Your task to perform on an android device: change the clock display to digital Image 0: 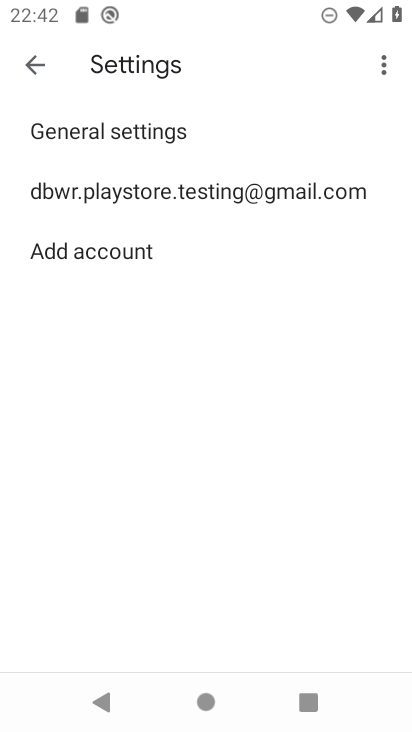
Step 0: press home button
Your task to perform on an android device: change the clock display to digital Image 1: 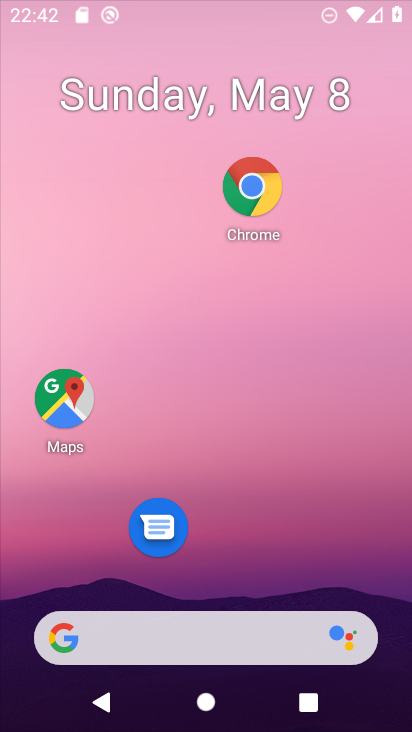
Step 1: drag from (260, 577) to (280, 281)
Your task to perform on an android device: change the clock display to digital Image 2: 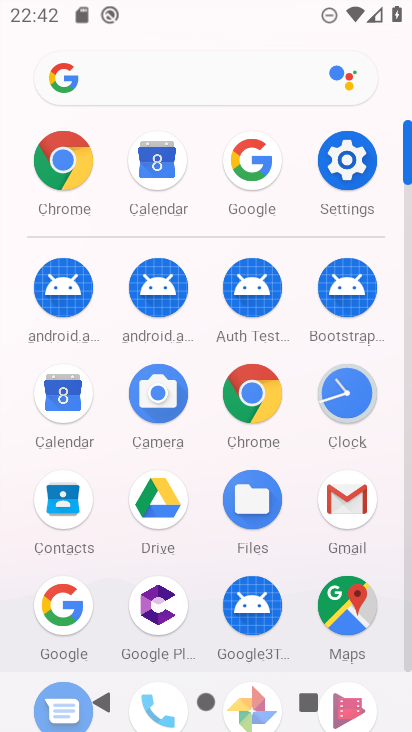
Step 2: click (344, 381)
Your task to perform on an android device: change the clock display to digital Image 3: 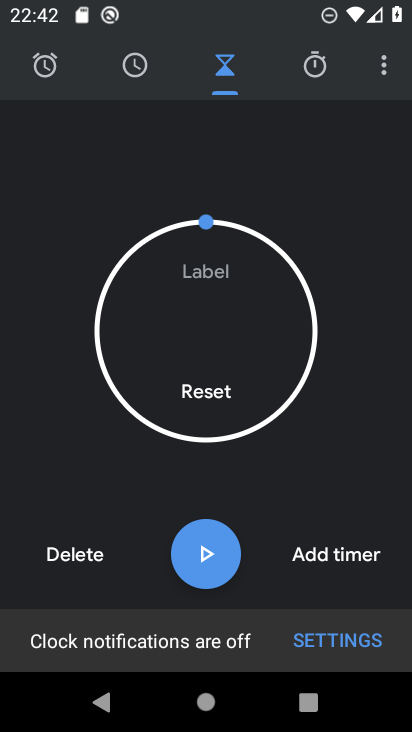
Step 3: click (379, 53)
Your task to perform on an android device: change the clock display to digital Image 4: 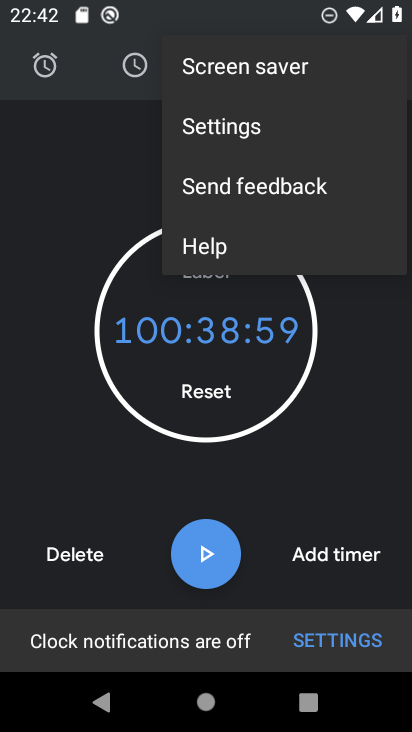
Step 4: click (271, 125)
Your task to perform on an android device: change the clock display to digital Image 5: 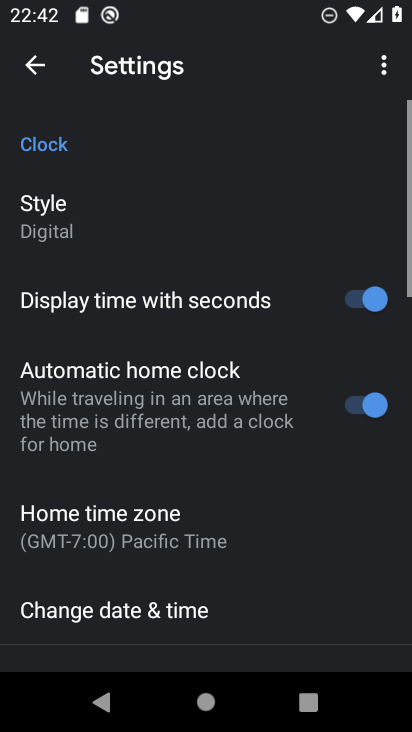
Step 5: click (30, 206)
Your task to perform on an android device: change the clock display to digital Image 6: 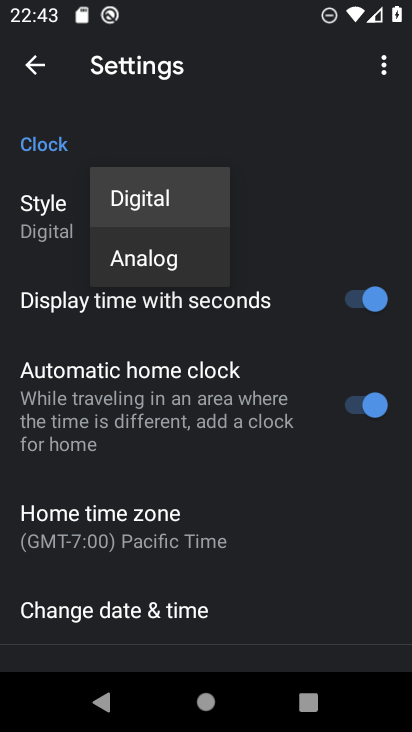
Step 6: click (121, 198)
Your task to perform on an android device: change the clock display to digital Image 7: 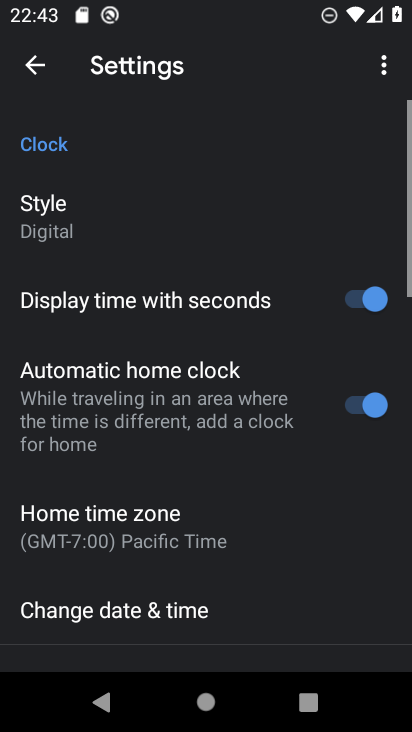
Step 7: task complete